Your task to perform on an android device: Open Chrome and go to the settings page Image 0: 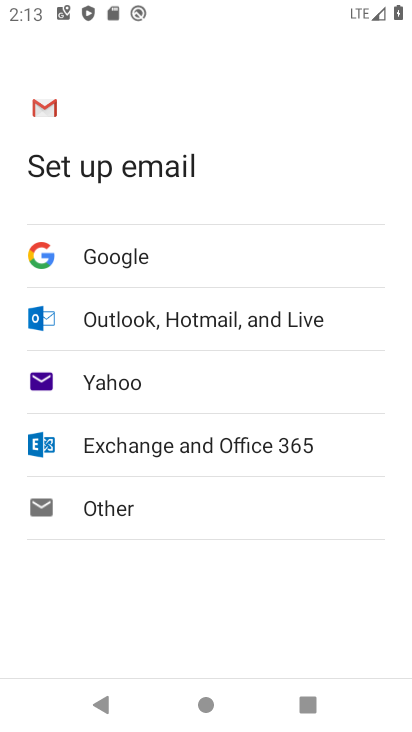
Step 0: press home button
Your task to perform on an android device: Open Chrome and go to the settings page Image 1: 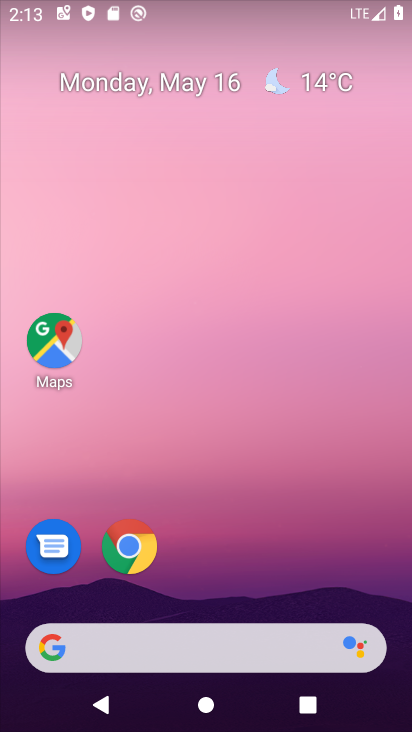
Step 1: drag from (244, 685) to (250, 258)
Your task to perform on an android device: Open Chrome and go to the settings page Image 2: 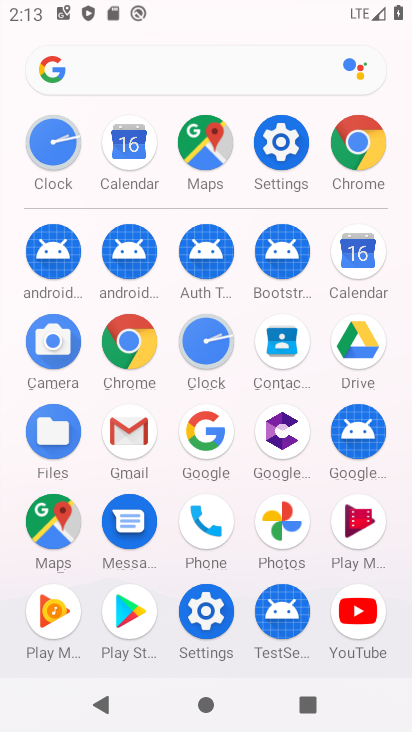
Step 2: click (354, 163)
Your task to perform on an android device: Open Chrome and go to the settings page Image 3: 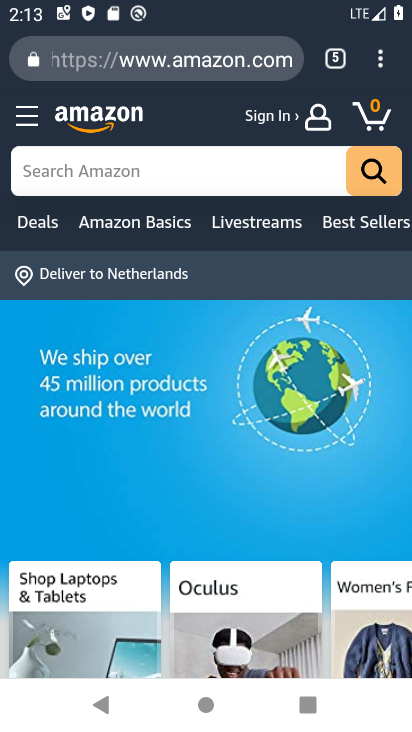
Step 3: click (378, 64)
Your task to perform on an android device: Open Chrome and go to the settings page Image 4: 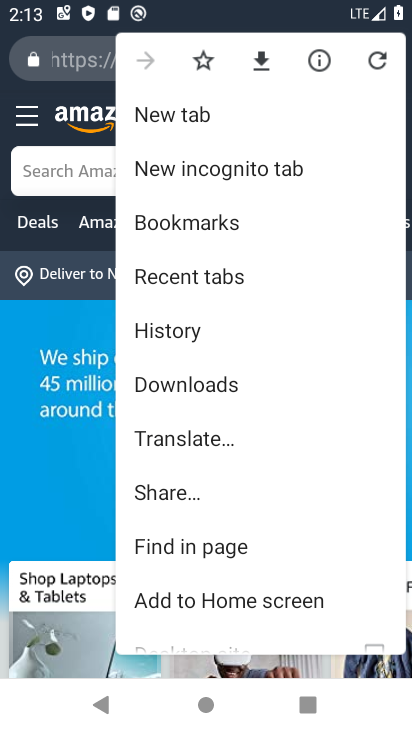
Step 4: drag from (220, 522) to (210, 394)
Your task to perform on an android device: Open Chrome and go to the settings page Image 5: 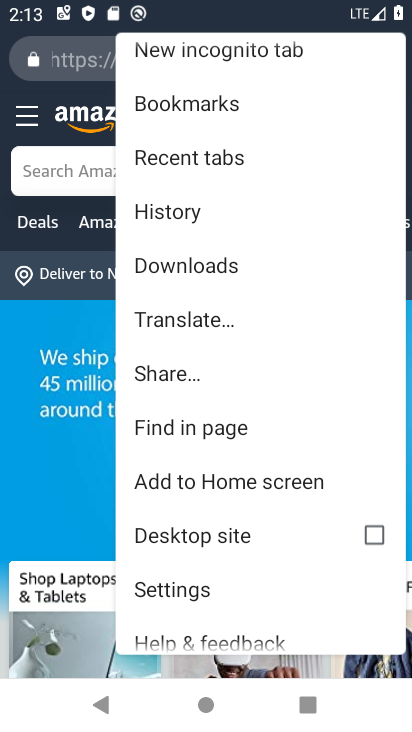
Step 5: click (173, 599)
Your task to perform on an android device: Open Chrome and go to the settings page Image 6: 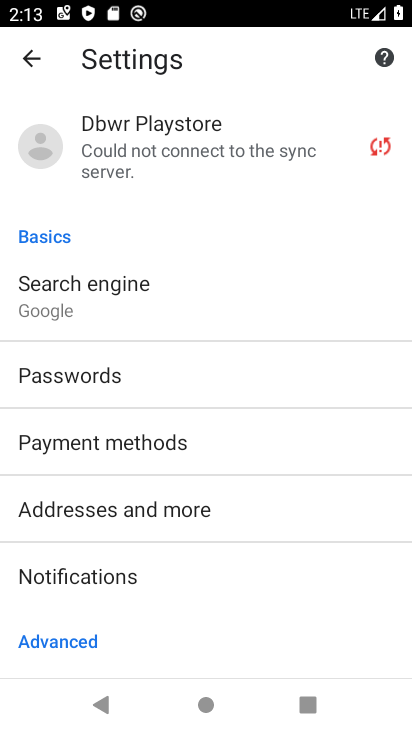
Step 6: task complete